Your task to perform on an android device: Add razer blade to the cart on ebay Image 0: 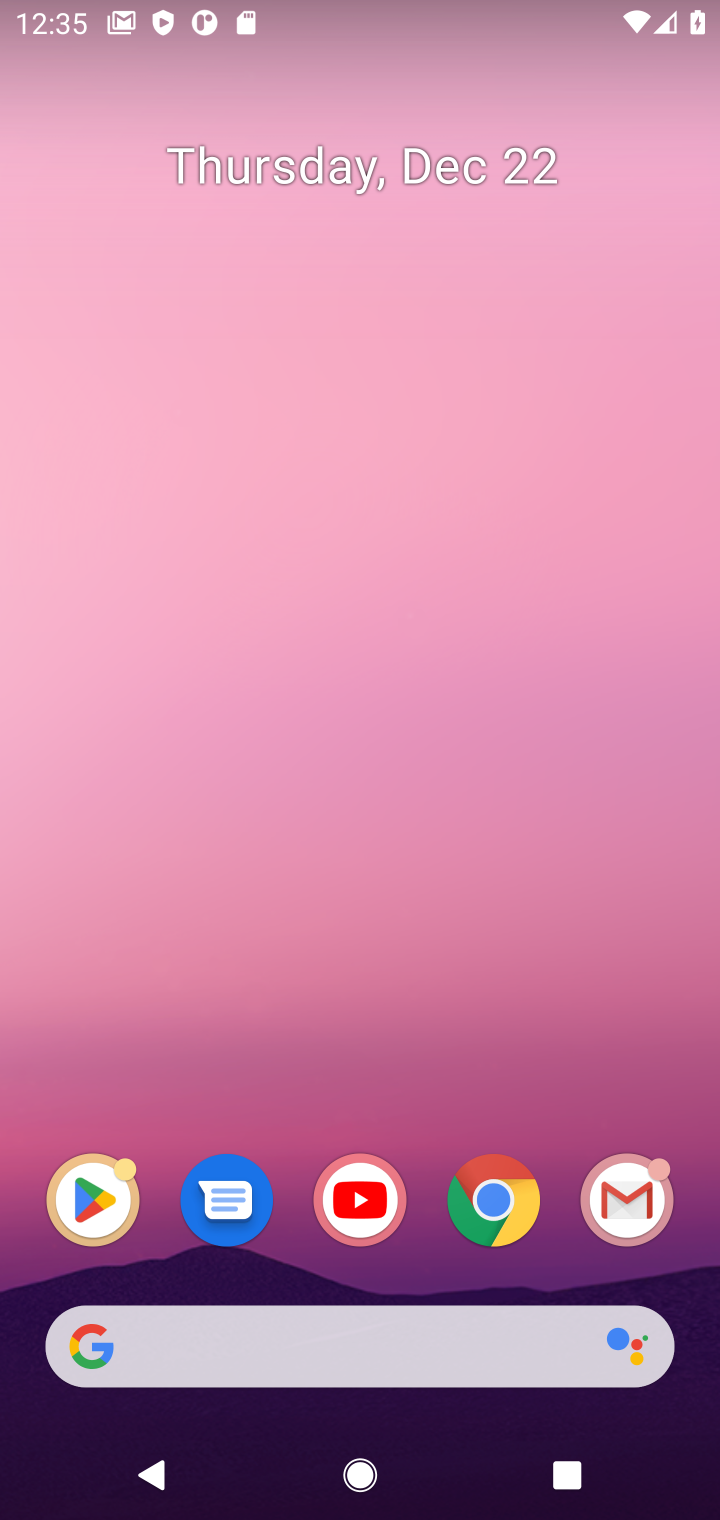
Step 0: click (471, 1209)
Your task to perform on an android device: Add razer blade to the cart on ebay Image 1: 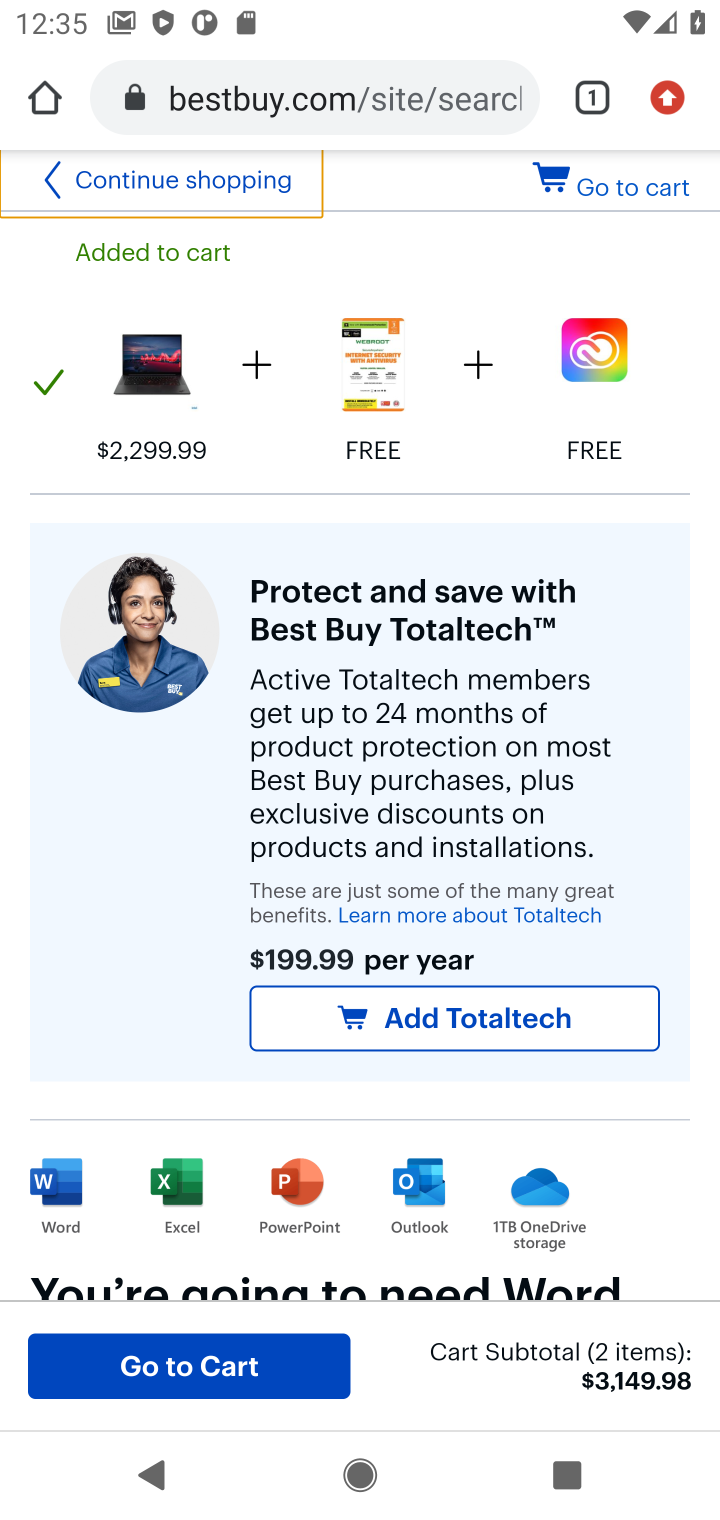
Step 1: click (316, 115)
Your task to perform on an android device: Add razer blade to the cart on ebay Image 2: 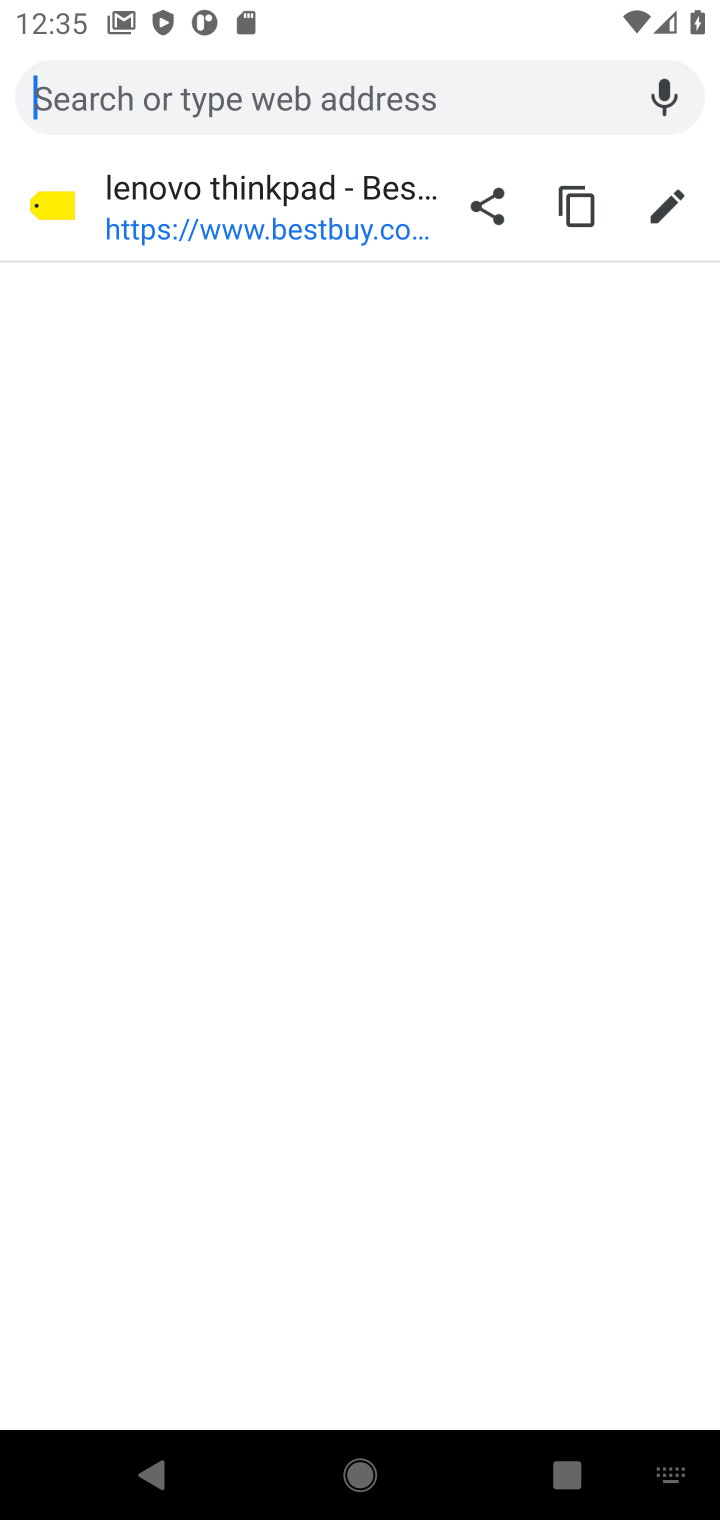
Step 2: type "ebay.com"
Your task to perform on an android device: Add razer blade to the cart on ebay Image 3: 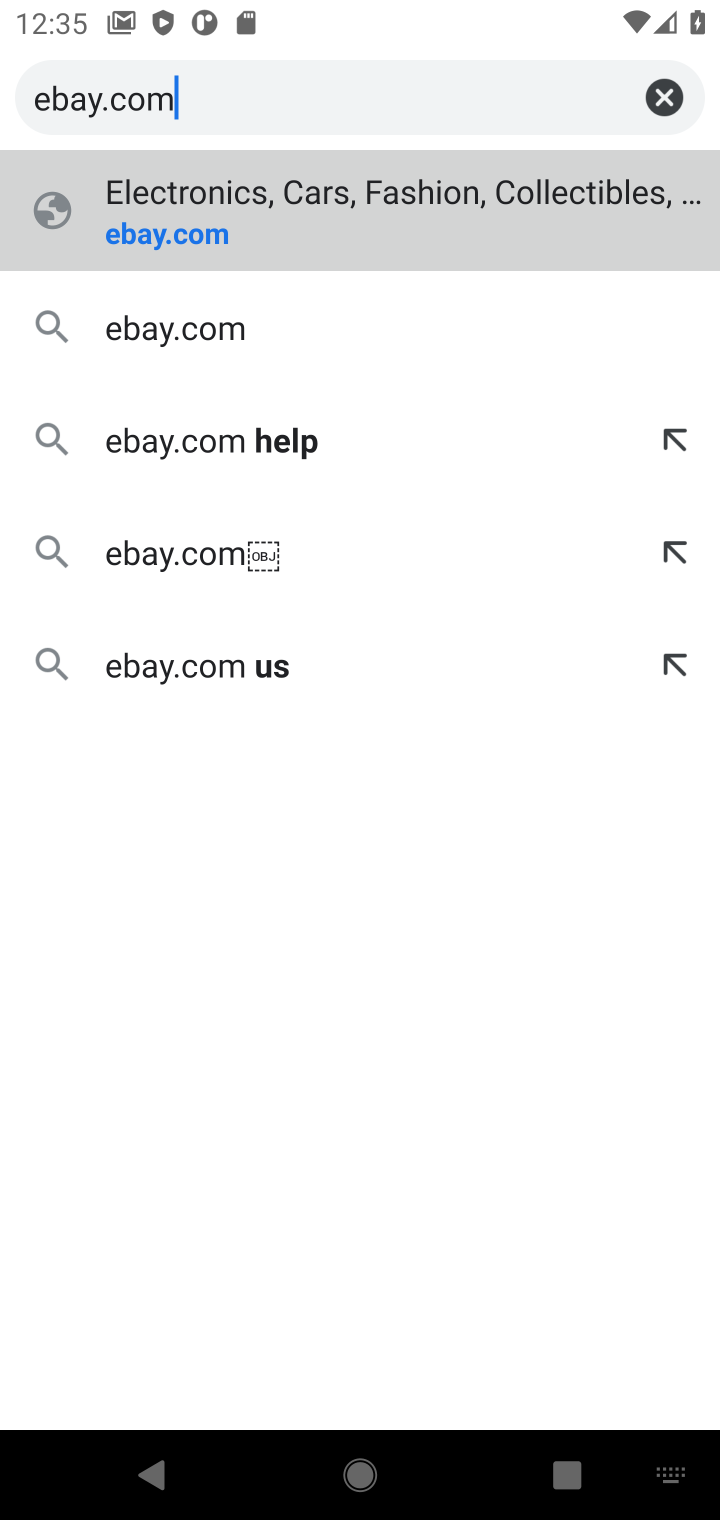
Step 3: click (145, 240)
Your task to perform on an android device: Add razer blade to the cart on ebay Image 4: 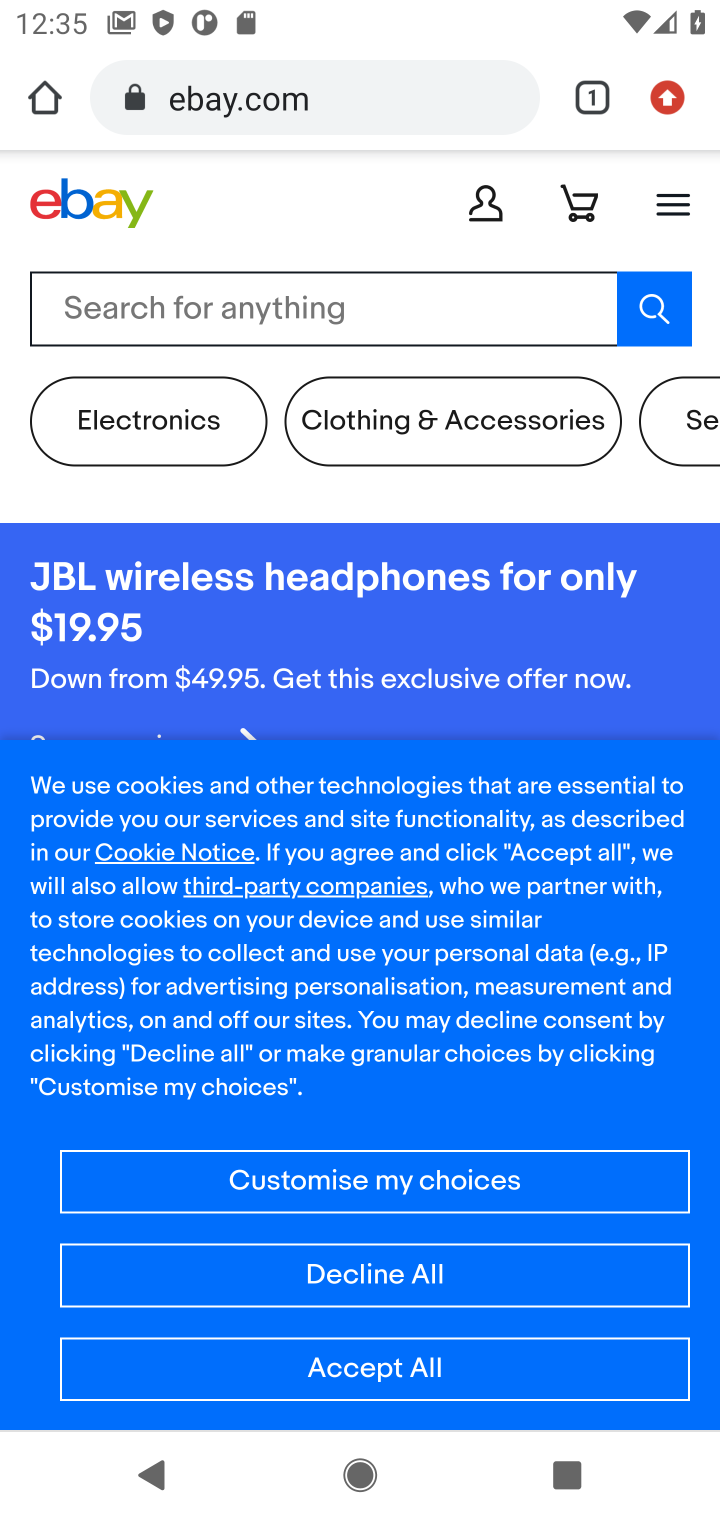
Step 4: click (155, 308)
Your task to perform on an android device: Add razer blade to the cart on ebay Image 5: 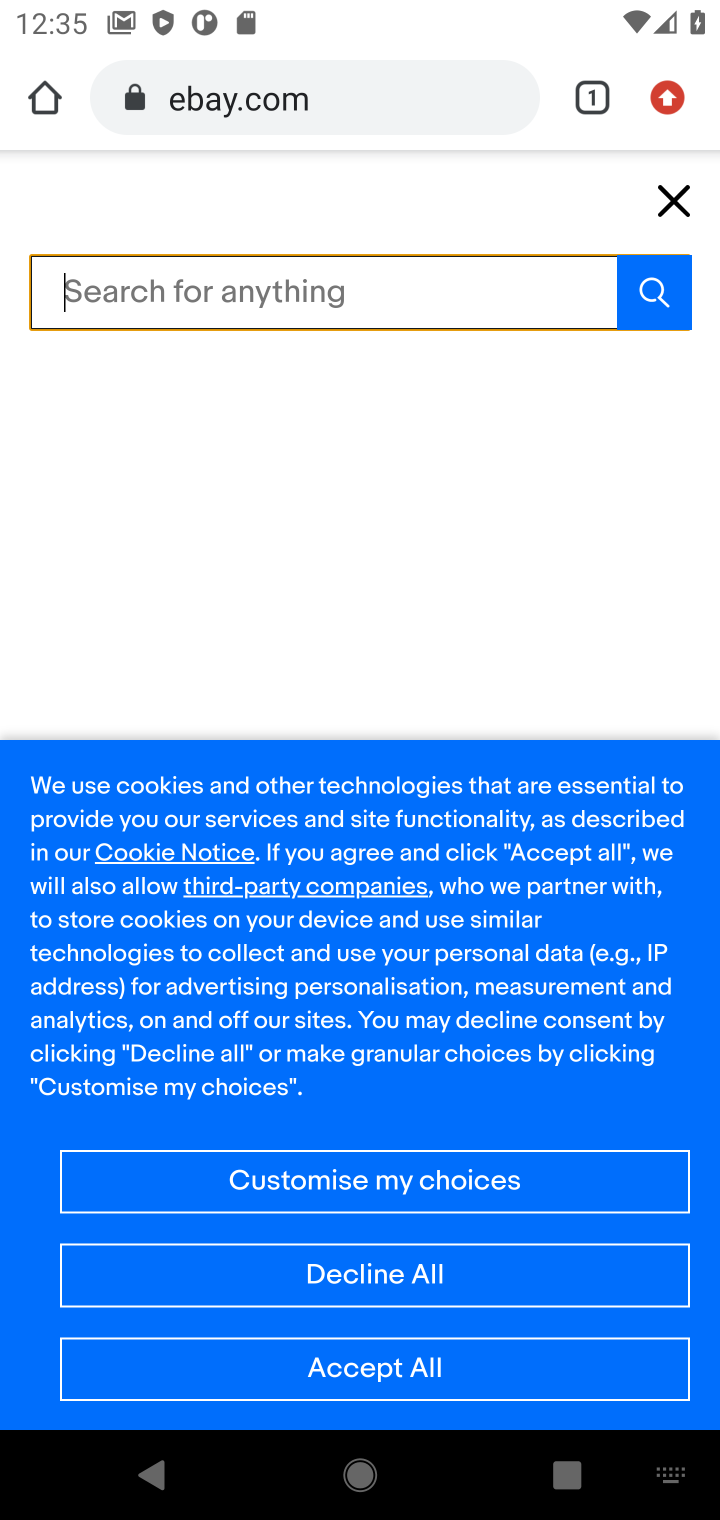
Step 5: type "razer blade"
Your task to perform on an android device: Add razer blade to the cart on ebay Image 6: 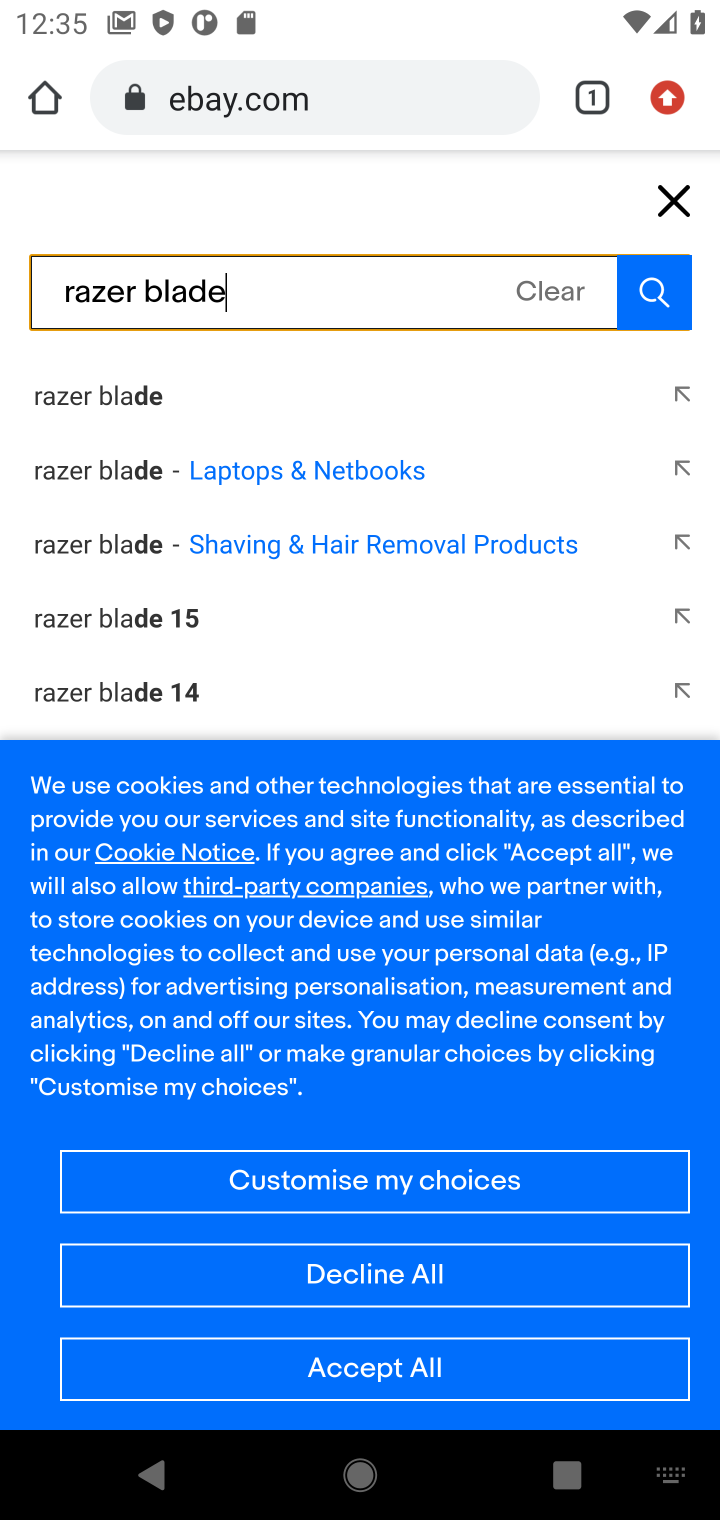
Step 6: click (69, 400)
Your task to perform on an android device: Add razer blade to the cart on ebay Image 7: 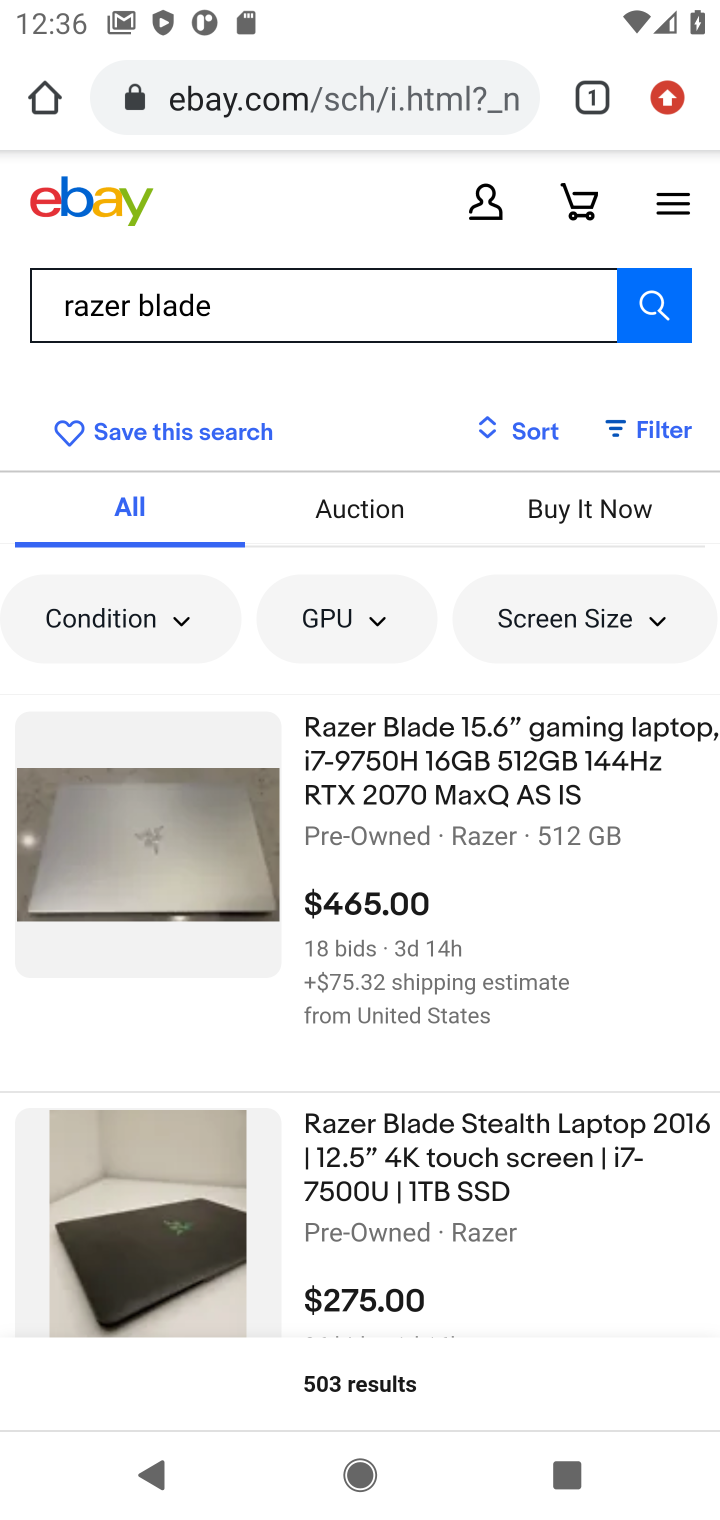
Step 7: drag from (371, 997) to (412, 658)
Your task to perform on an android device: Add razer blade to the cart on ebay Image 8: 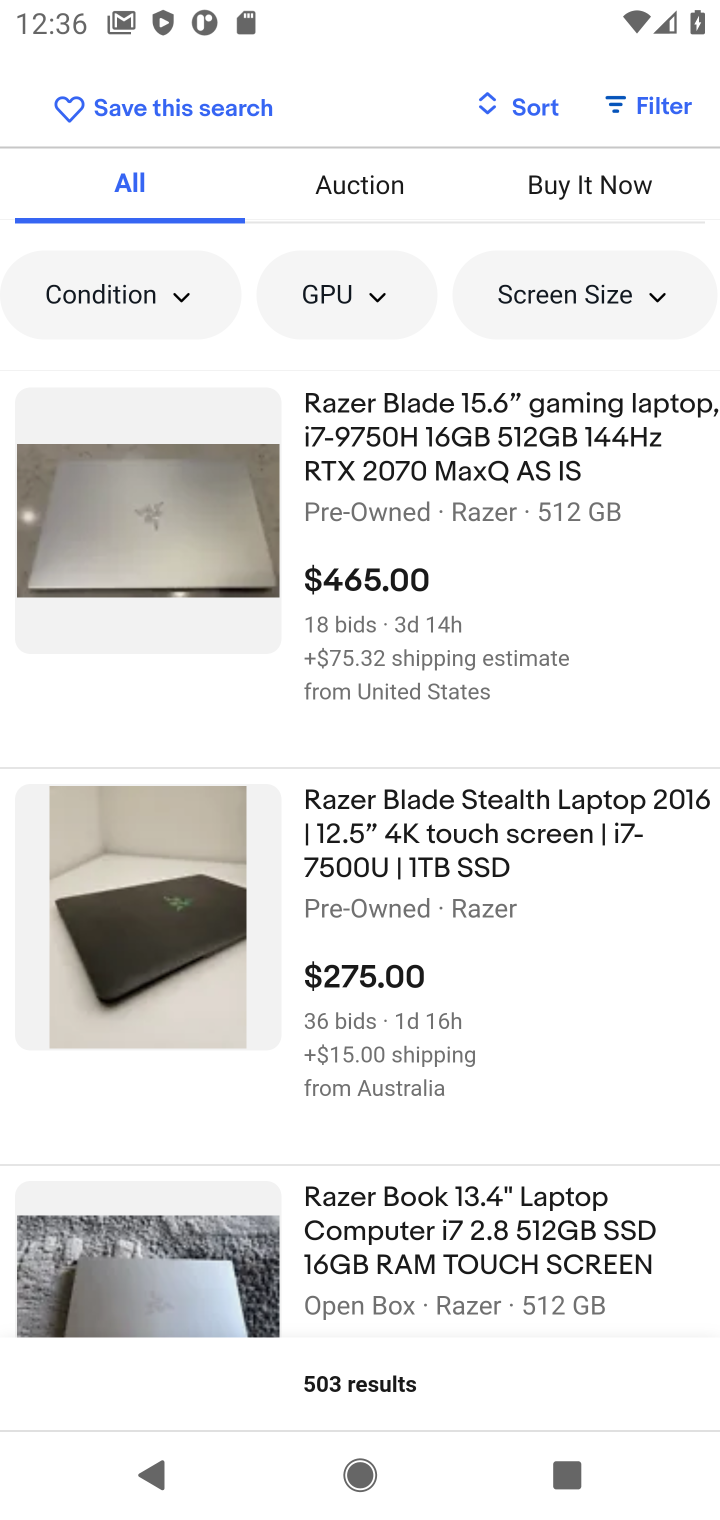
Step 8: drag from (399, 1142) to (455, 717)
Your task to perform on an android device: Add razer blade to the cart on ebay Image 9: 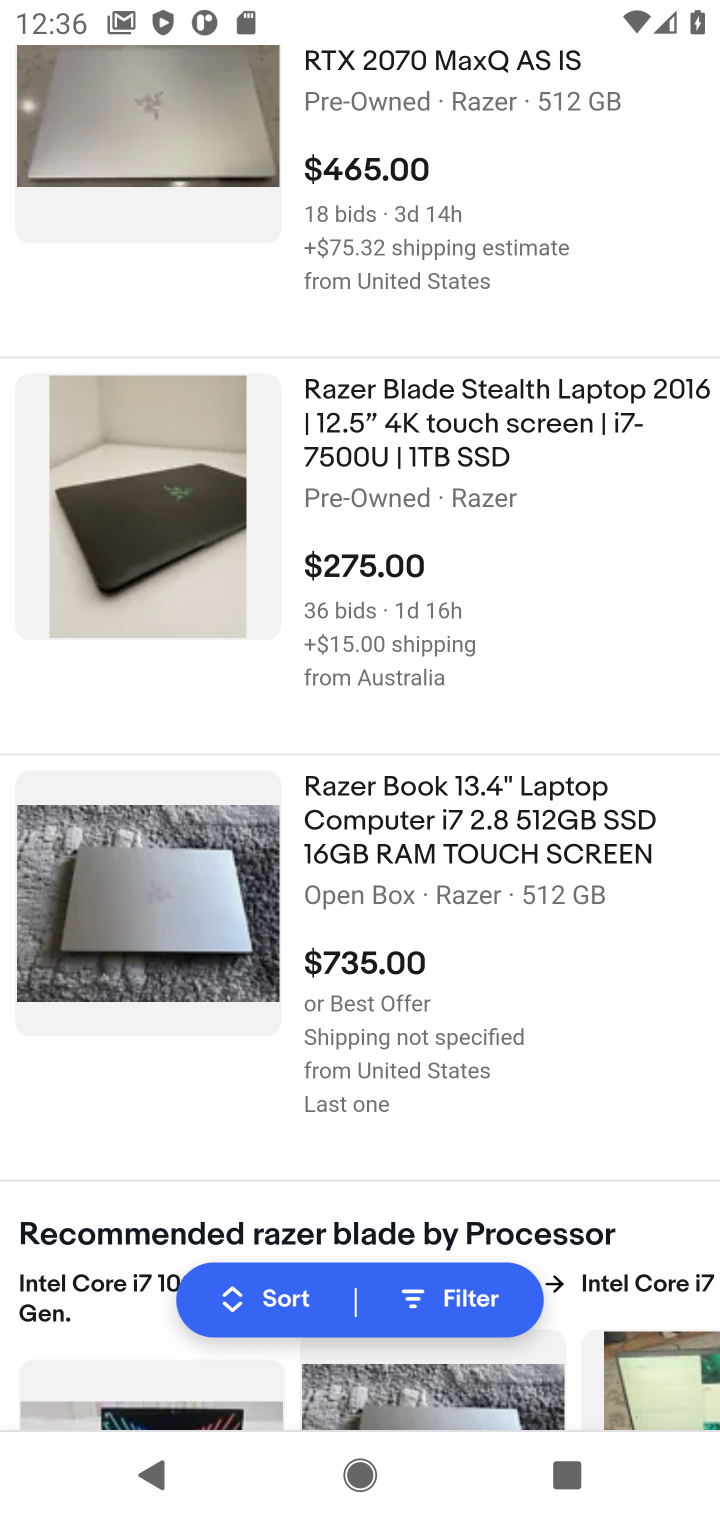
Step 9: click (384, 856)
Your task to perform on an android device: Add razer blade to the cart on ebay Image 10: 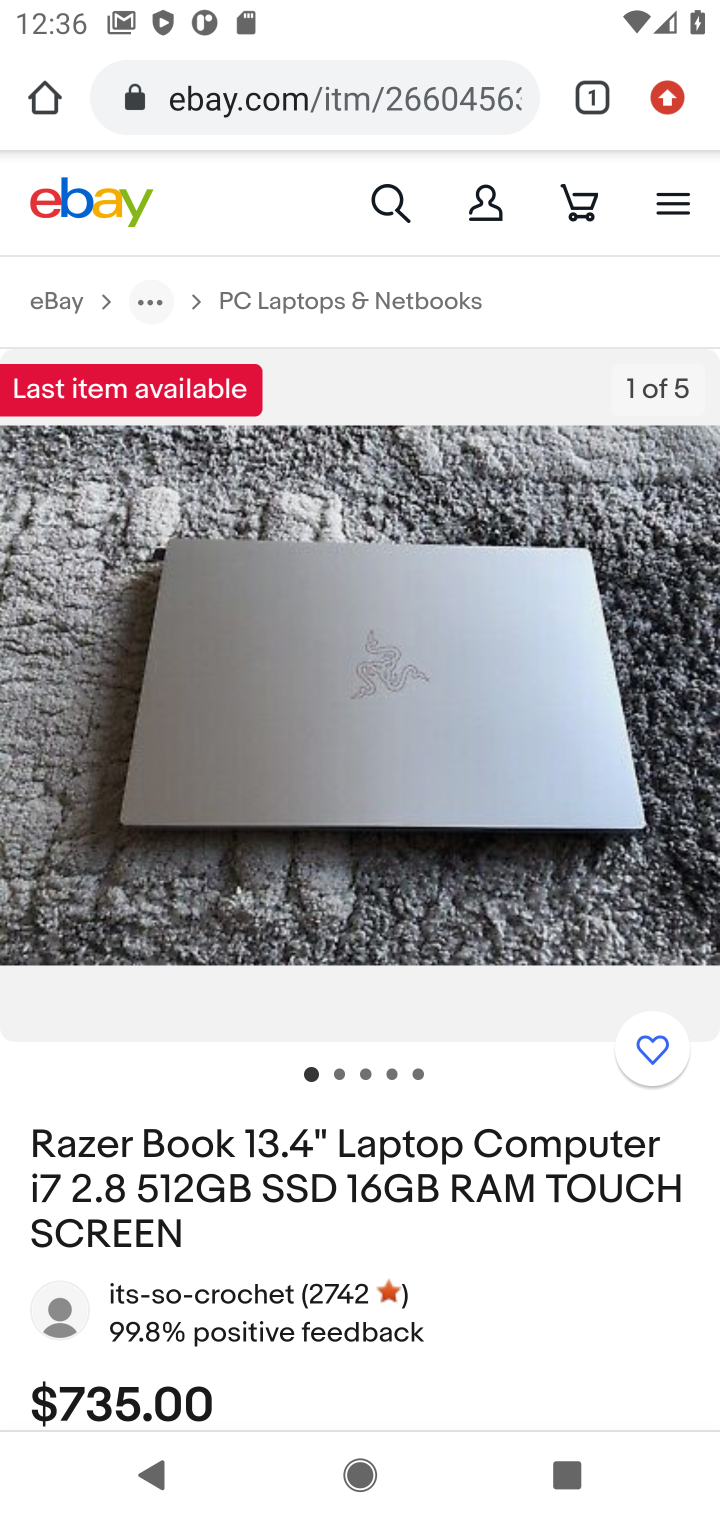
Step 10: press back button
Your task to perform on an android device: Add razer blade to the cart on ebay Image 11: 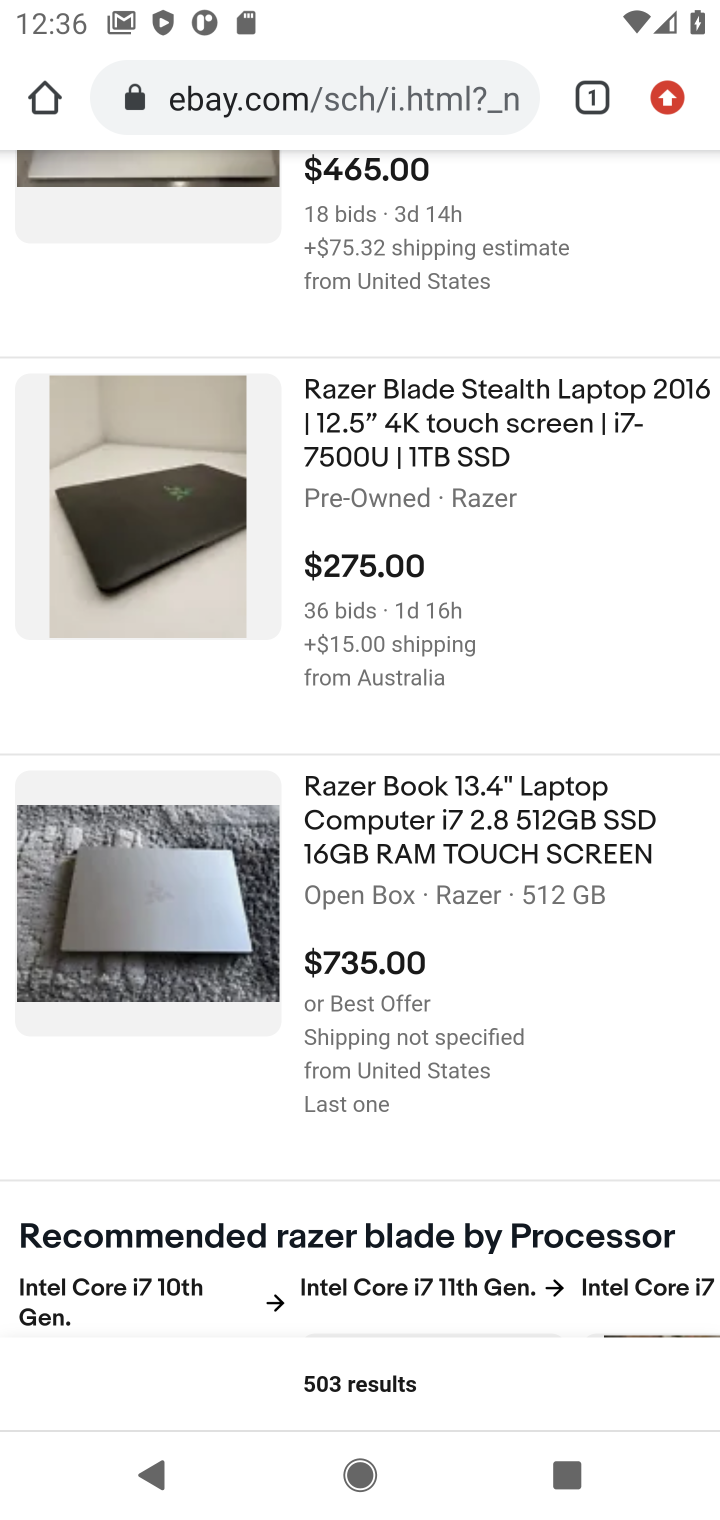
Step 11: drag from (347, 917) to (376, 536)
Your task to perform on an android device: Add razer blade to the cart on ebay Image 12: 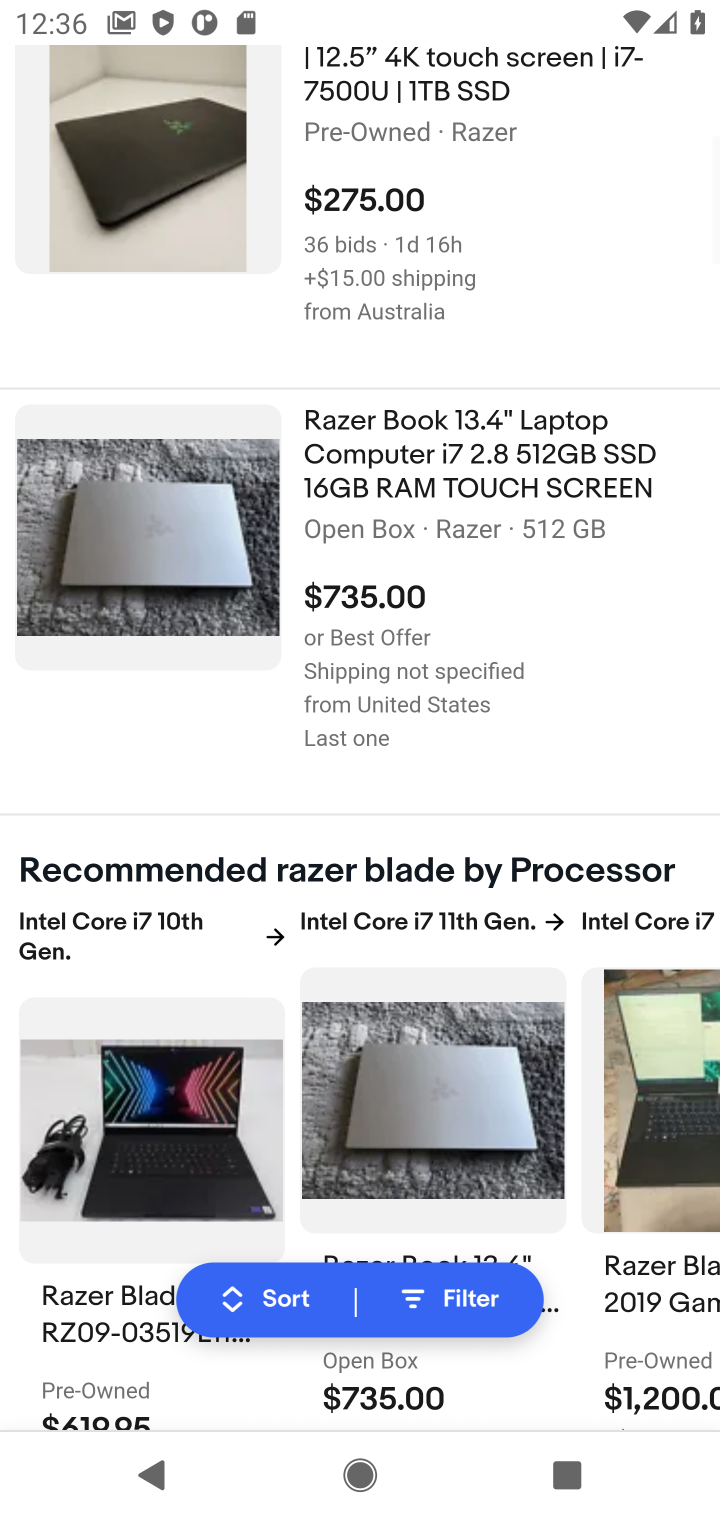
Step 12: drag from (400, 1031) to (442, 481)
Your task to perform on an android device: Add razer blade to the cart on ebay Image 13: 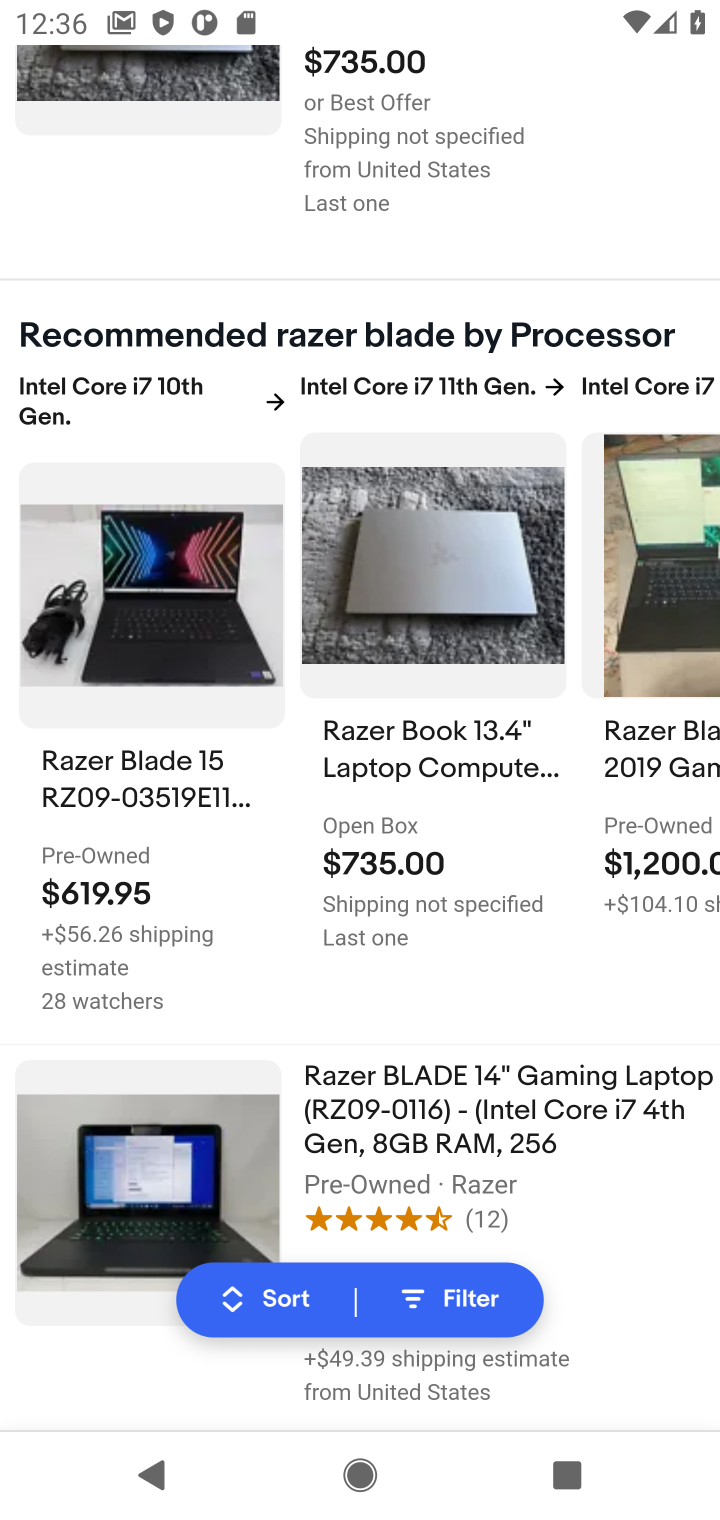
Step 13: drag from (430, 1014) to (446, 553)
Your task to perform on an android device: Add razer blade to the cart on ebay Image 14: 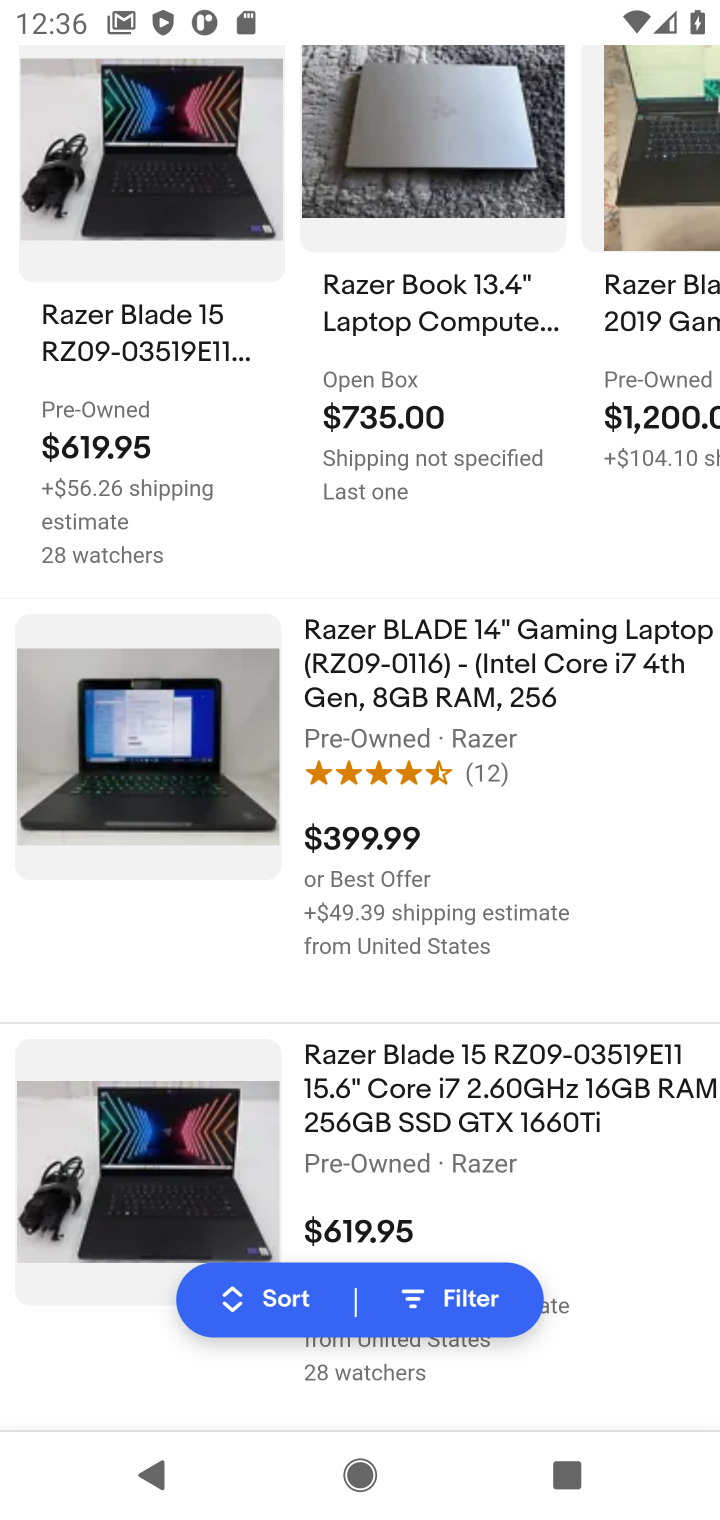
Step 14: click (374, 986)
Your task to perform on an android device: Add razer blade to the cart on ebay Image 15: 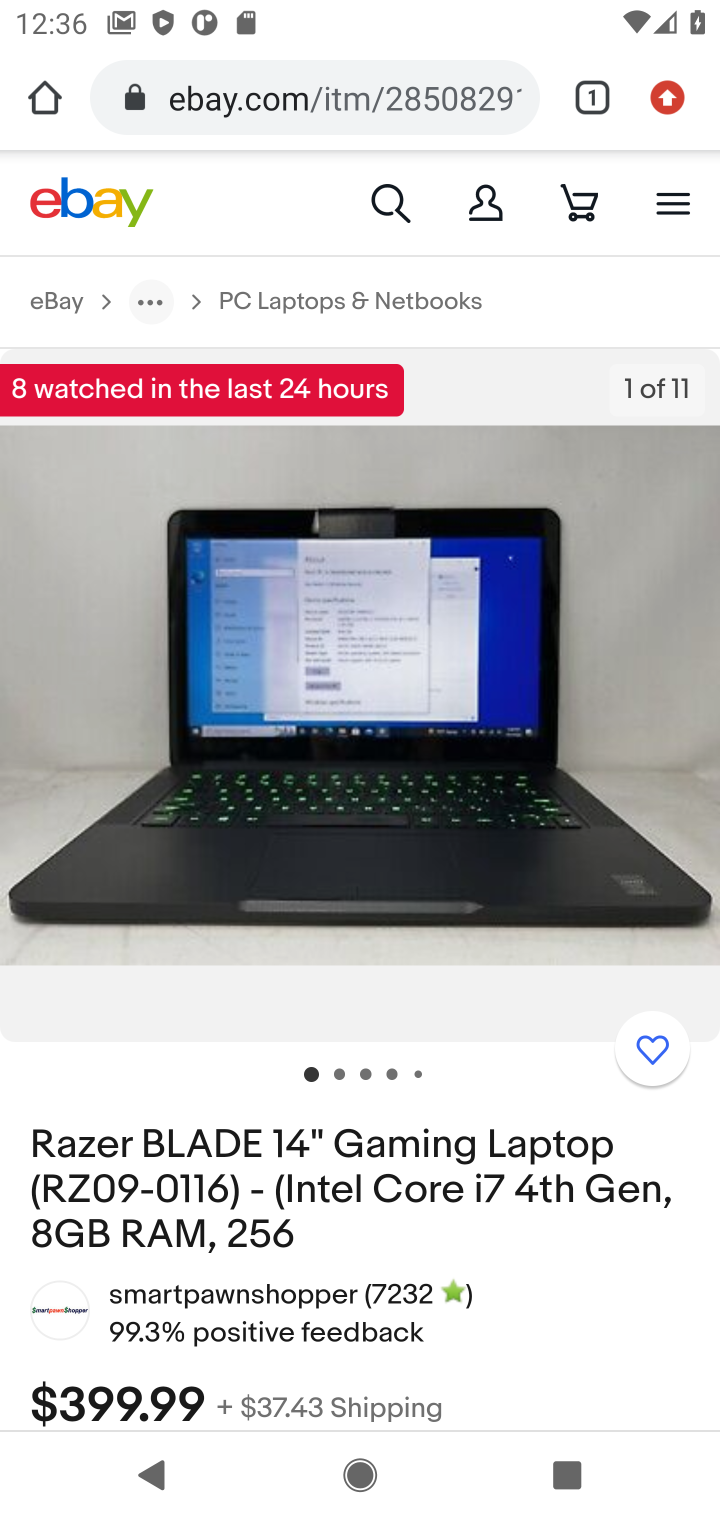
Step 15: drag from (303, 1068) to (317, 662)
Your task to perform on an android device: Add razer blade to the cart on ebay Image 16: 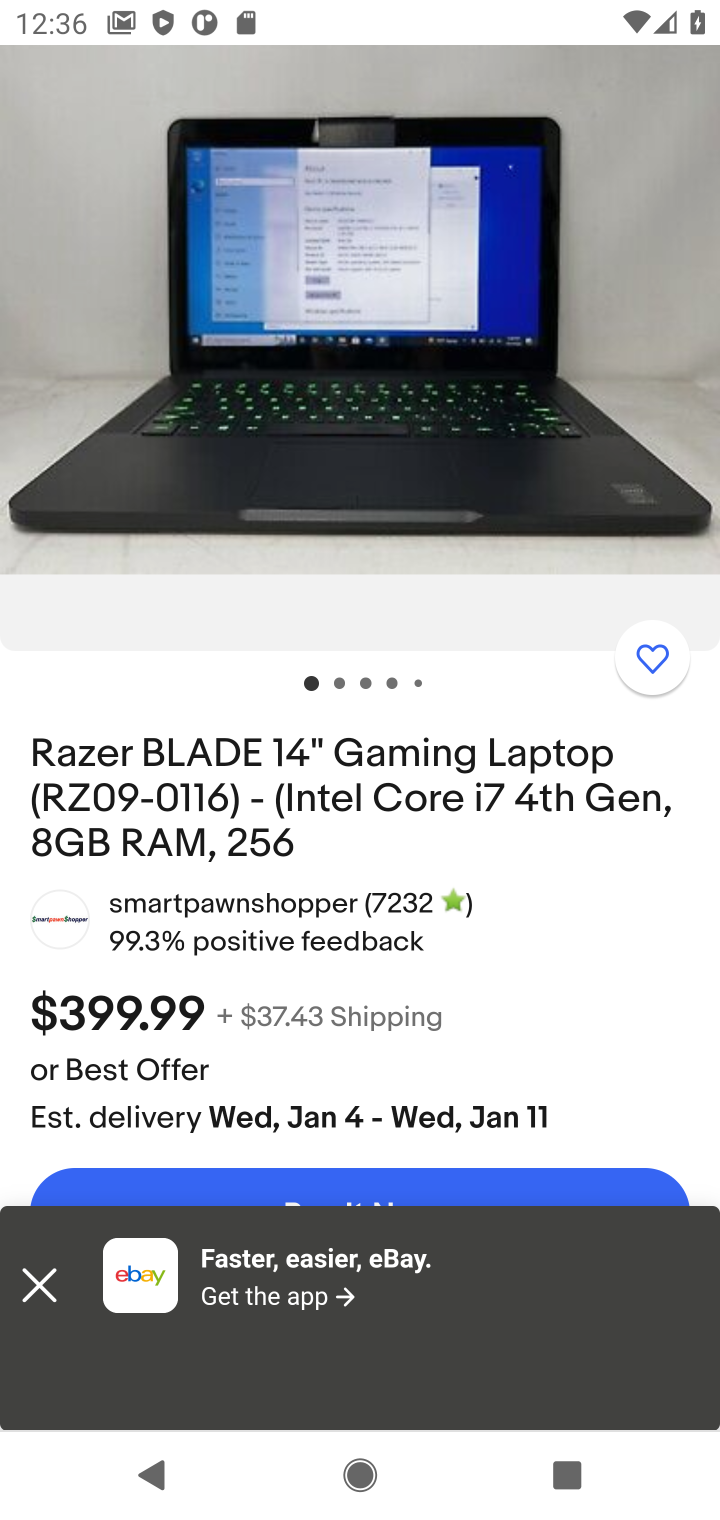
Step 16: drag from (332, 1126) to (308, 716)
Your task to perform on an android device: Add razer blade to the cart on ebay Image 17: 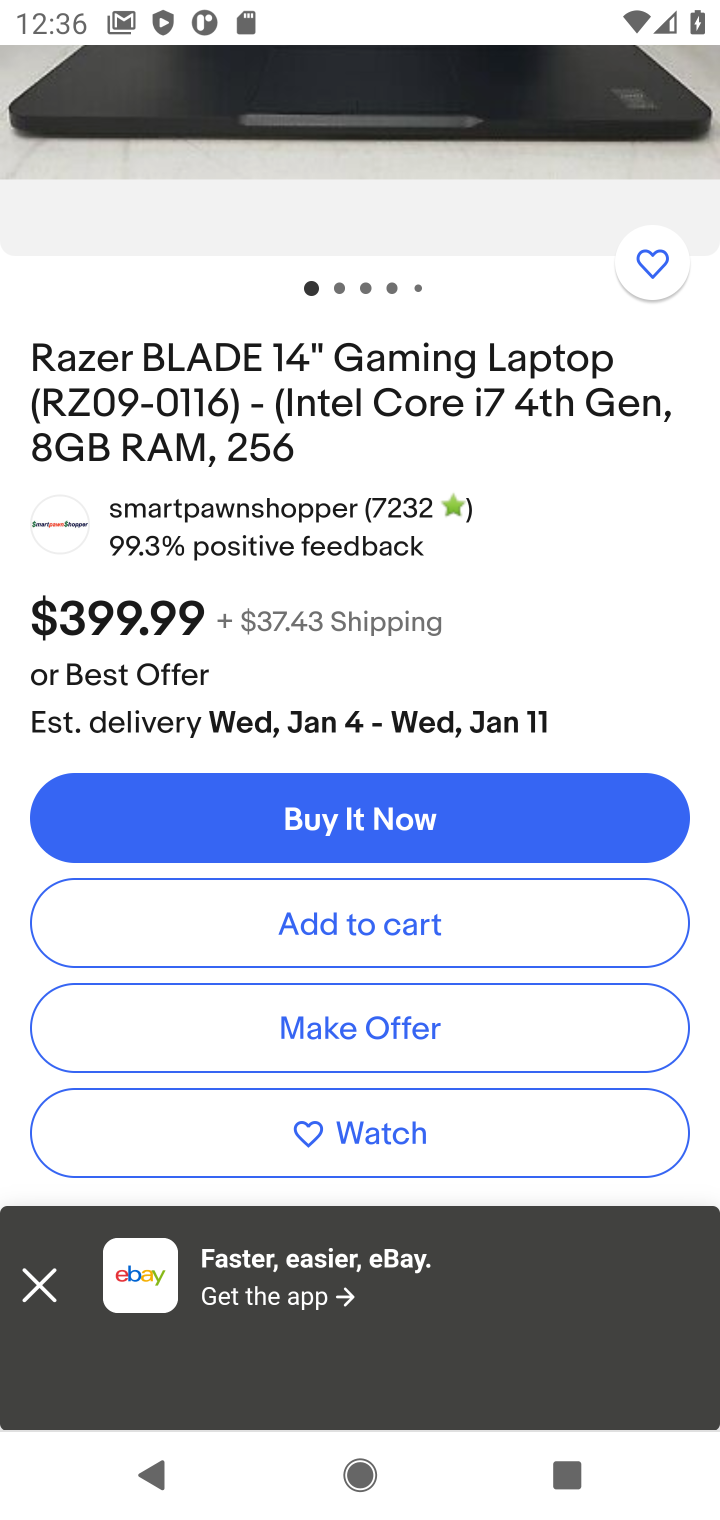
Step 17: click (304, 925)
Your task to perform on an android device: Add razer blade to the cart on ebay Image 18: 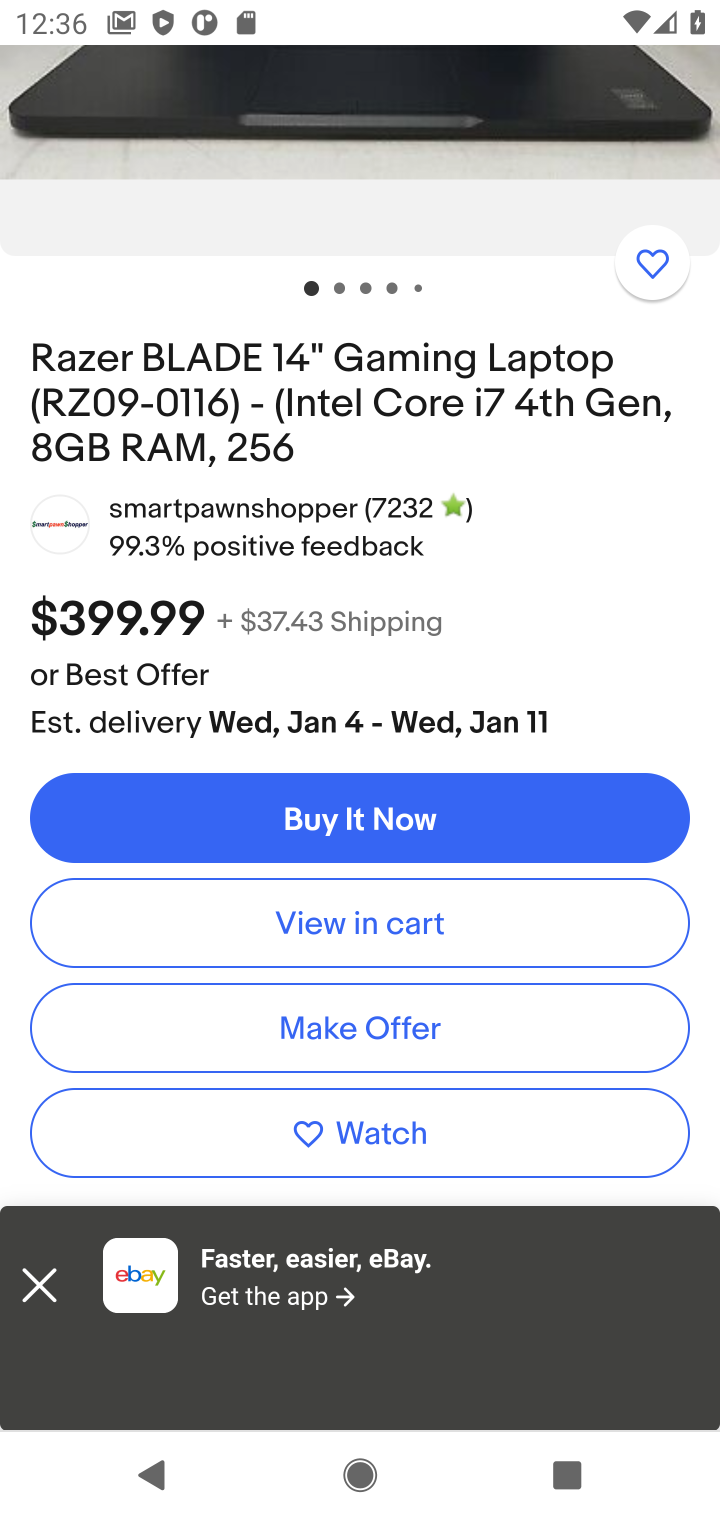
Step 18: click (380, 925)
Your task to perform on an android device: Add razer blade to the cart on ebay Image 19: 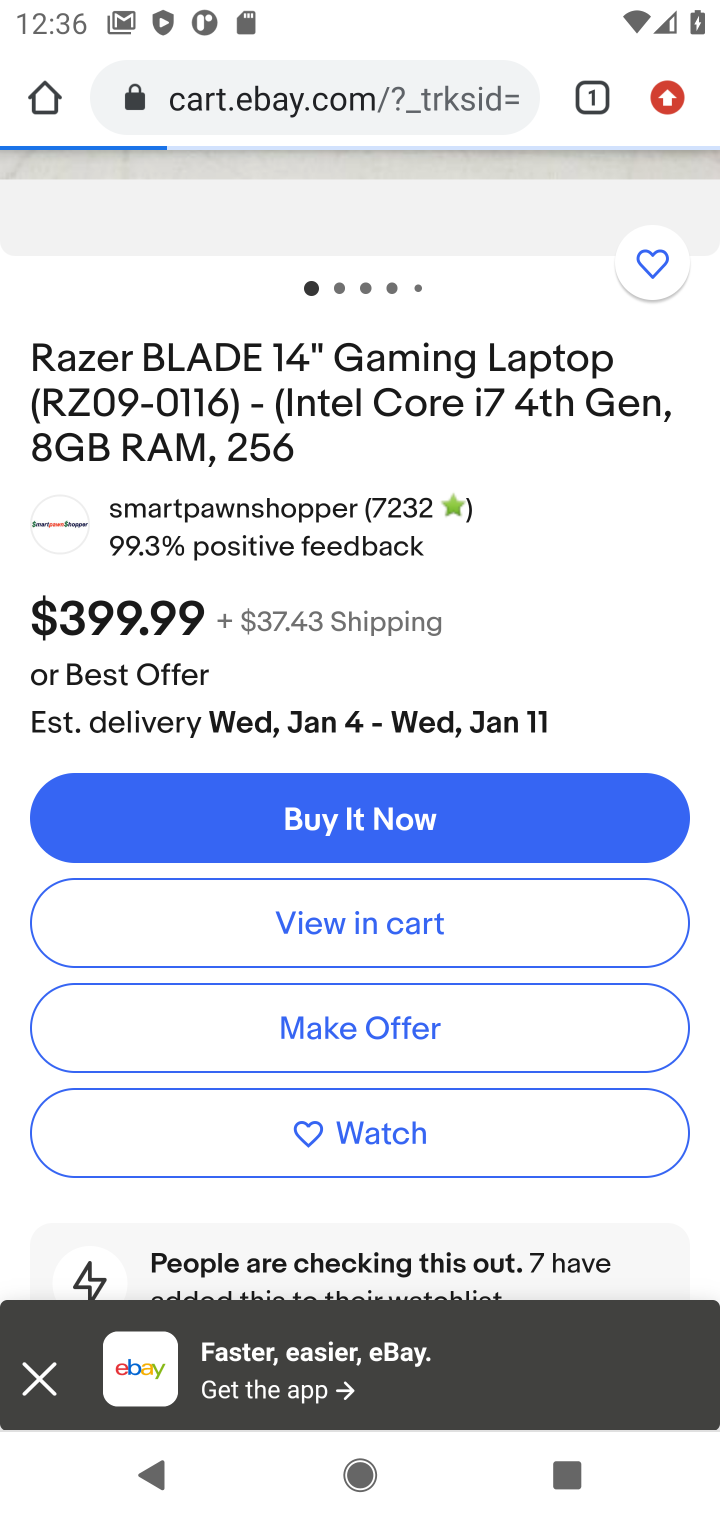
Step 19: task complete